Your task to perform on an android device: delete location history Image 0: 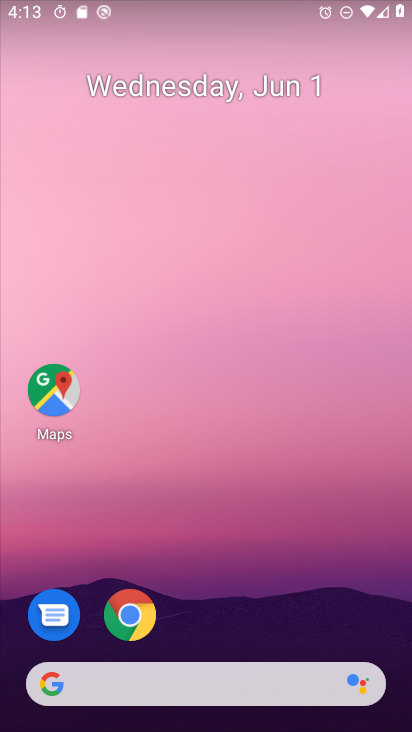
Step 0: drag from (302, 687) to (335, 15)
Your task to perform on an android device: delete location history Image 1: 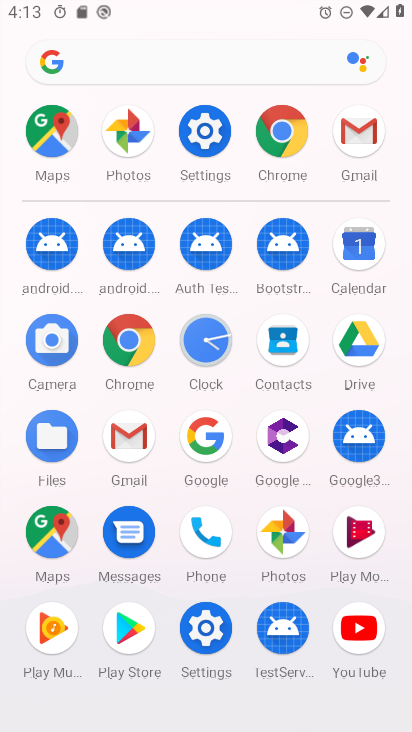
Step 1: click (61, 530)
Your task to perform on an android device: delete location history Image 2: 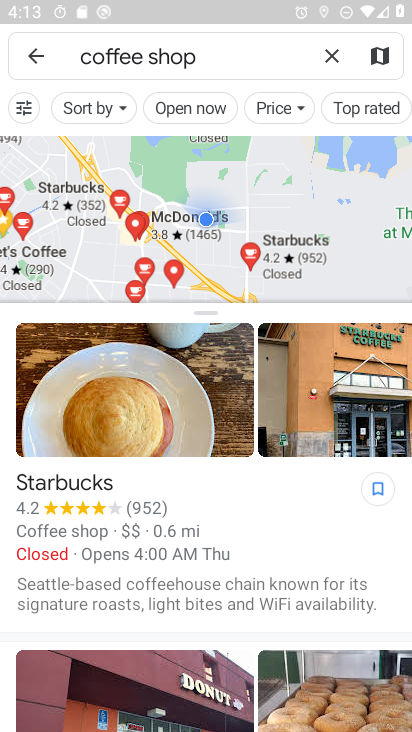
Step 2: press back button
Your task to perform on an android device: delete location history Image 3: 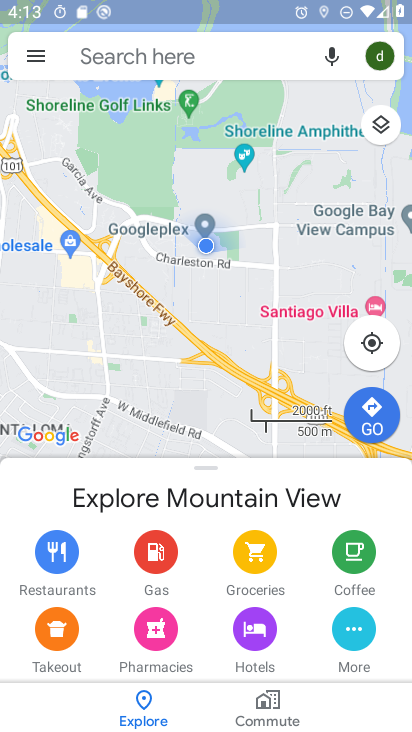
Step 3: click (39, 58)
Your task to perform on an android device: delete location history Image 4: 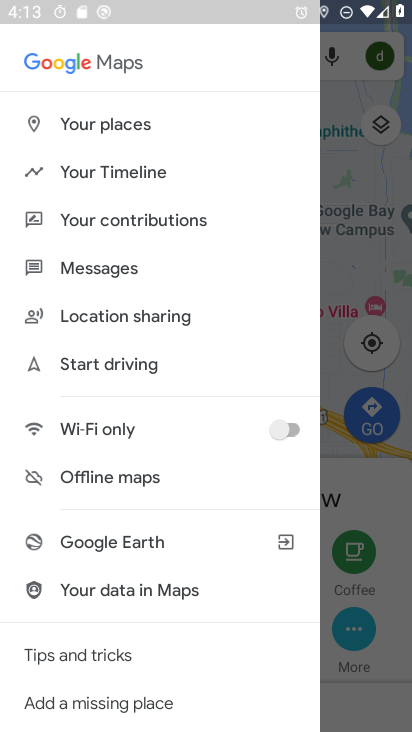
Step 4: click (114, 167)
Your task to perform on an android device: delete location history Image 5: 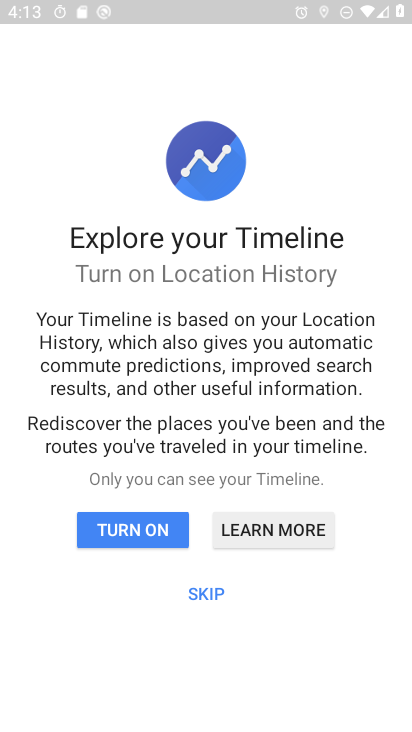
Step 5: click (198, 583)
Your task to perform on an android device: delete location history Image 6: 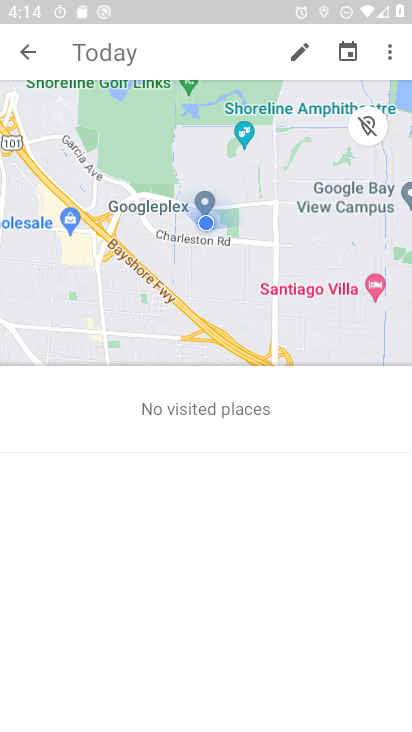
Step 6: click (380, 53)
Your task to perform on an android device: delete location history Image 7: 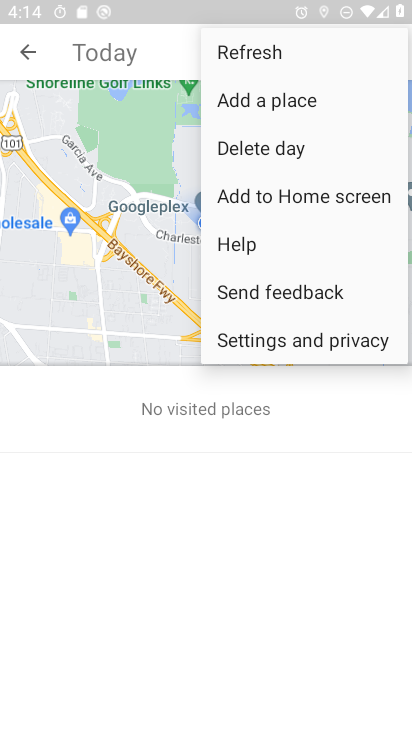
Step 7: click (258, 330)
Your task to perform on an android device: delete location history Image 8: 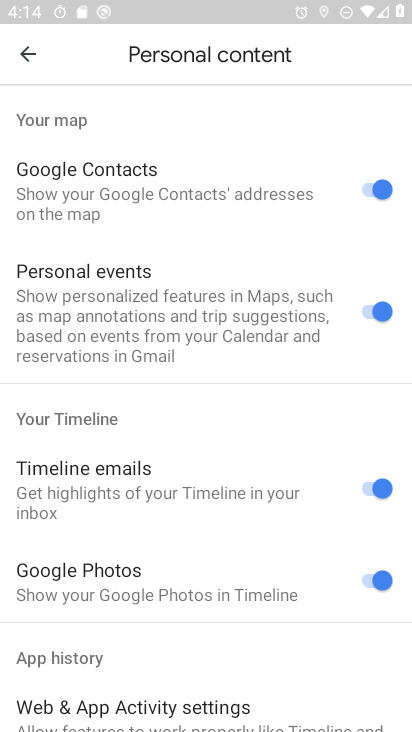
Step 8: drag from (190, 638) to (217, 48)
Your task to perform on an android device: delete location history Image 9: 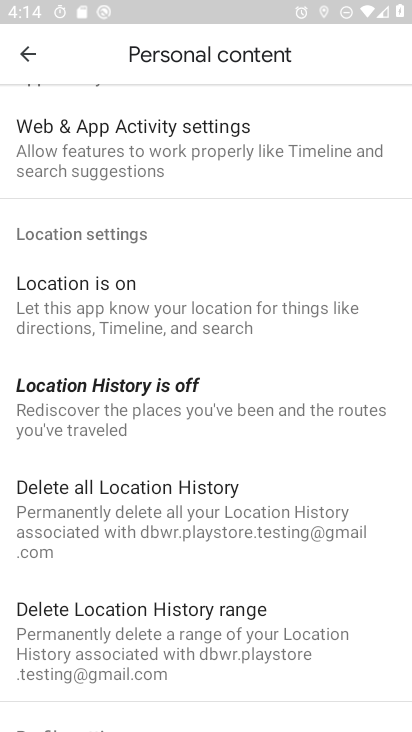
Step 9: click (214, 522)
Your task to perform on an android device: delete location history Image 10: 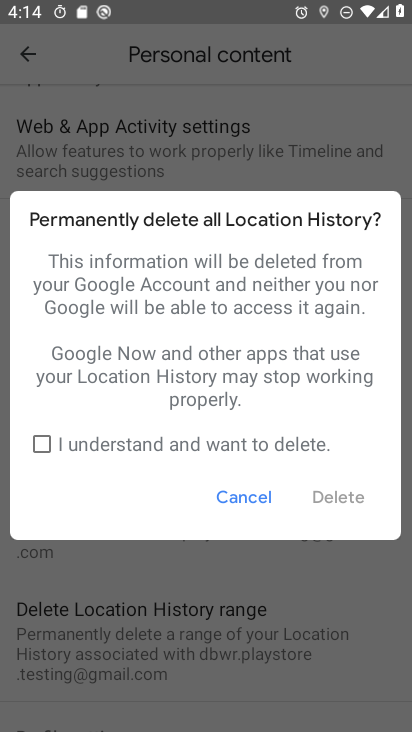
Step 10: click (37, 443)
Your task to perform on an android device: delete location history Image 11: 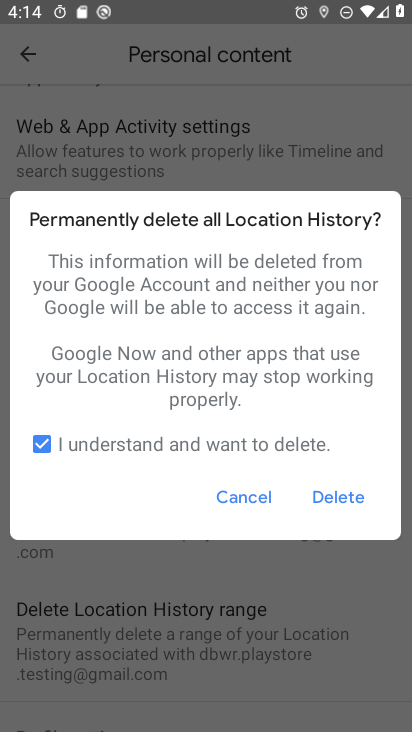
Step 11: click (344, 501)
Your task to perform on an android device: delete location history Image 12: 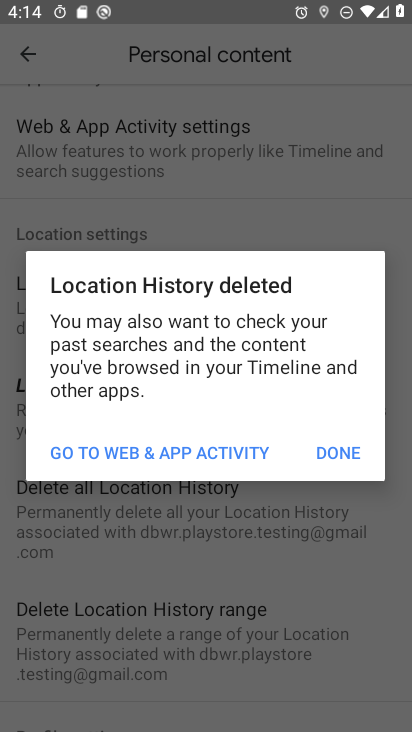
Step 12: click (350, 450)
Your task to perform on an android device: delete location history Image 13: 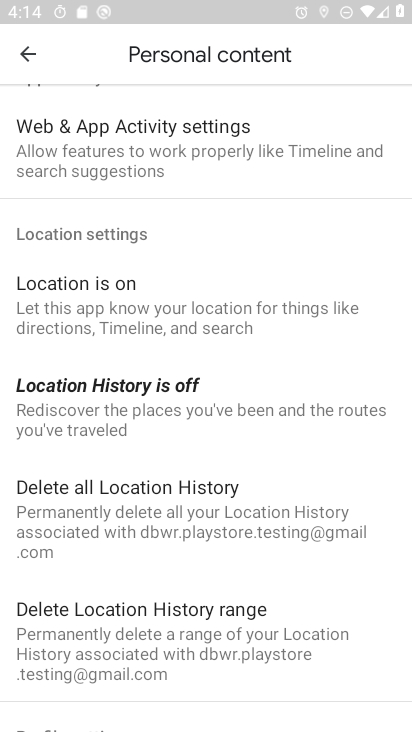
Step 13: task complete